Your task to perform on an android device: Go to Amazon Image 0: 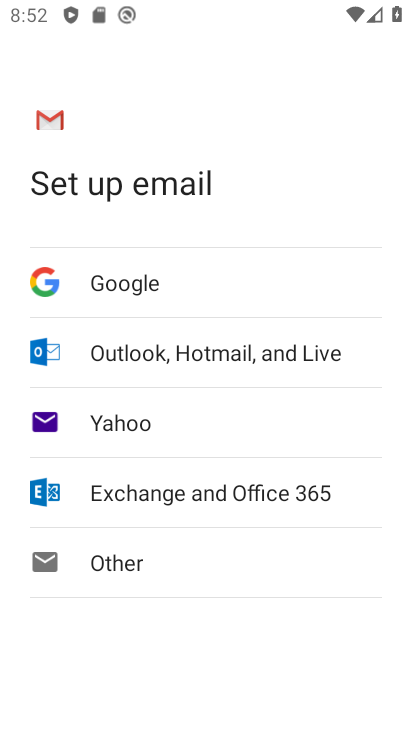
Step 0: press home button
Your task to perform on an android device: Go to Amazon Image 1: 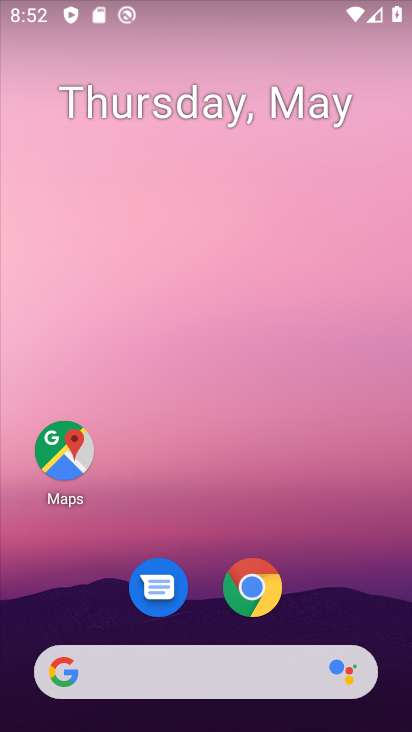
Step 1: drag from (347, 544) to (396, 54)
Your task to perform on an android device: Go to Amazon Image 2: 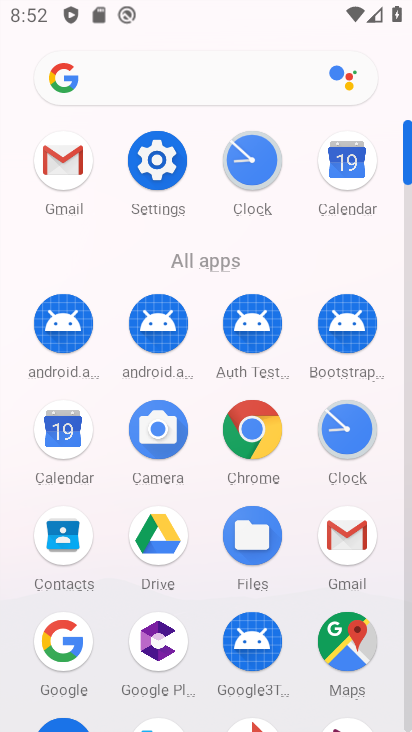
Step 2: click (258, 443)
Your task to perform on an android device: Go to Amazon Image 3: 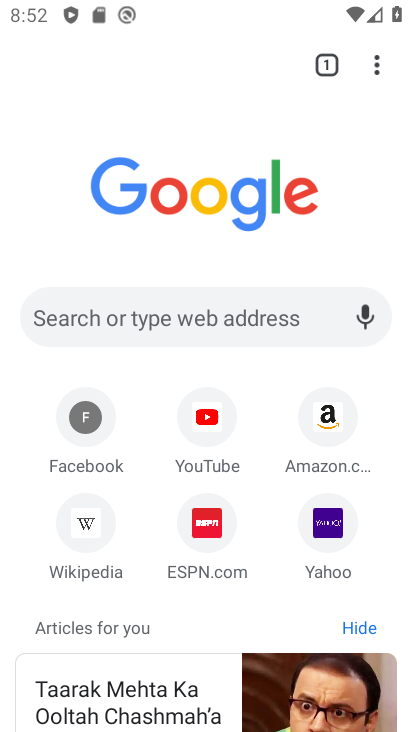
Step 3: click (327, 413)
Your task to perform on an android device: Go to Amazon Image 4: 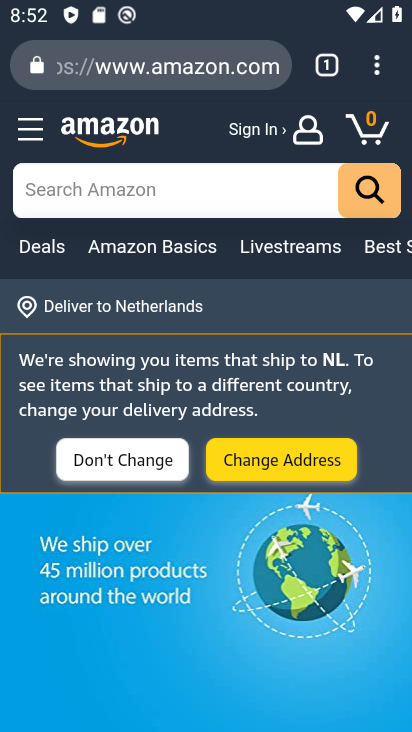
Step 4: task complete